Your task to perform on an android device: open device folders in google photos Image 0: 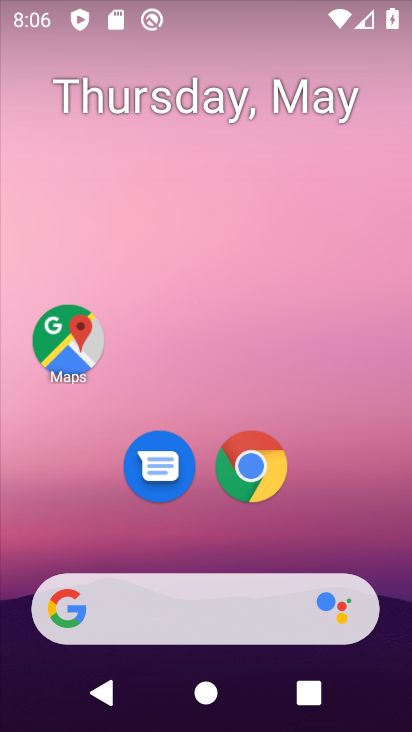
Step 0: drag from (237, 536) to (231, 12)
Your task to perform on an android device: open device folders in google photos Image 1: 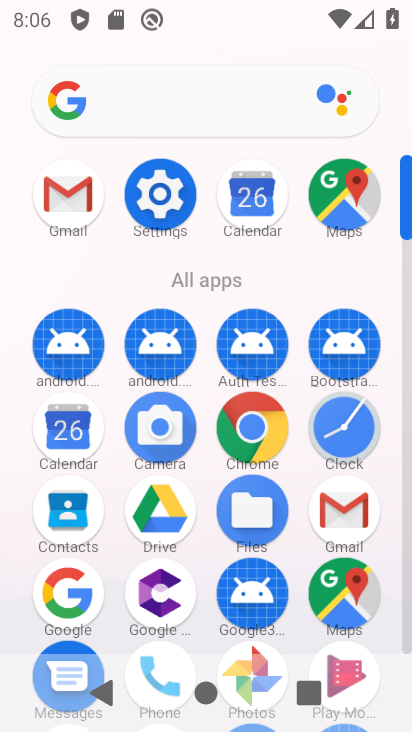
Step 1: click (252, 653)
Your task to perform on an android device: open device folders in google photos Image 2: 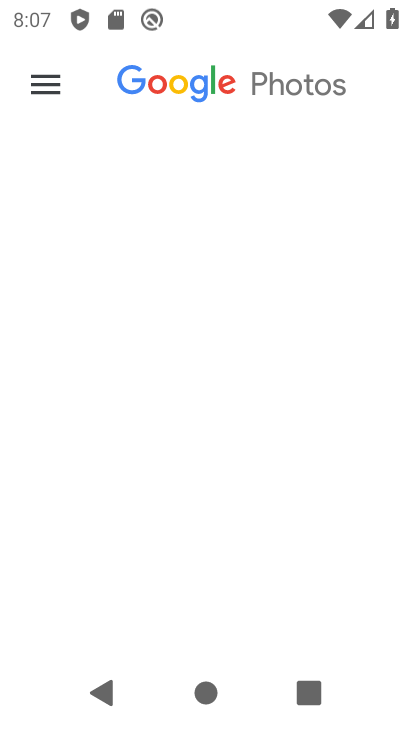
Step 2: click (51, 86)
Your task to perform on an android device: open device folders in google photos Image 3: 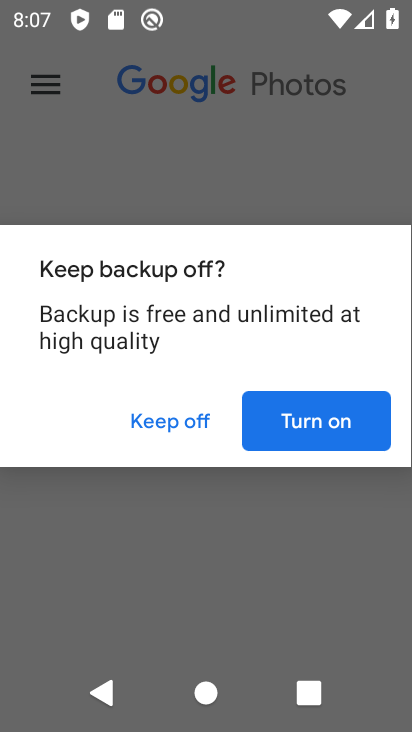
Step 3: click (195, 422)
Your task to perform on an android device: open device folders in google photos Image 4: 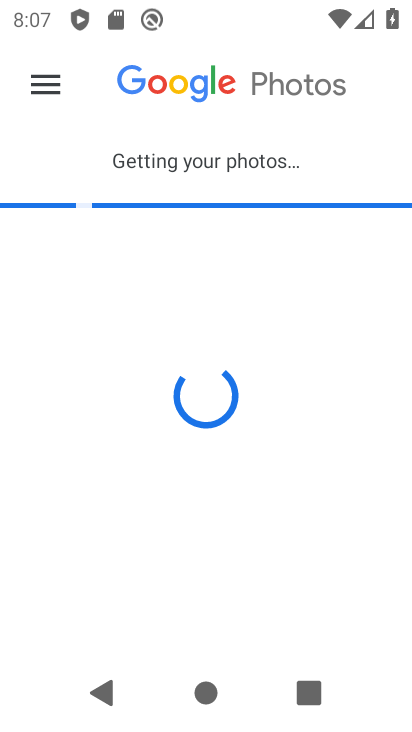
Step 4: click (43, 100)
Your task to perform on an android device: open device folders in google photos Image 5: 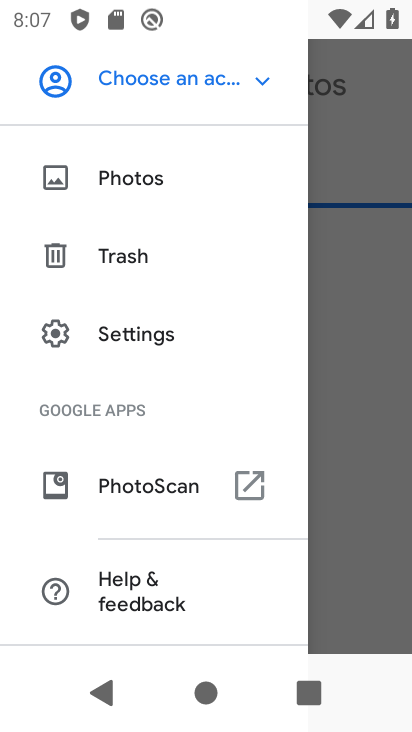
Step 5: click (113, 79)
Your task to perform on an android device: open device folders in google photos Image 6: 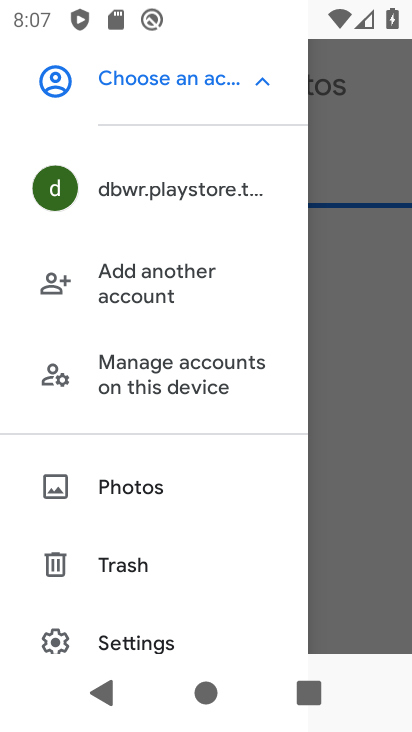
Step 6: click (182, 200)
Your task to perform on an android device: open device folders in google photos Image 7: 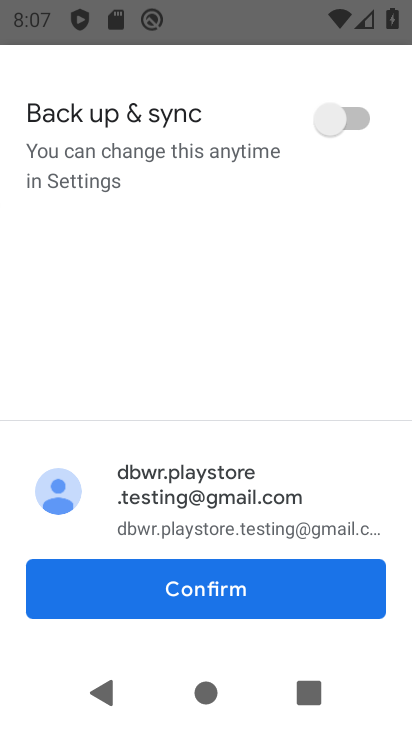
Step 7: click (238, 592)
Your task to perform on an android device: open device folders in google photos Image 8: 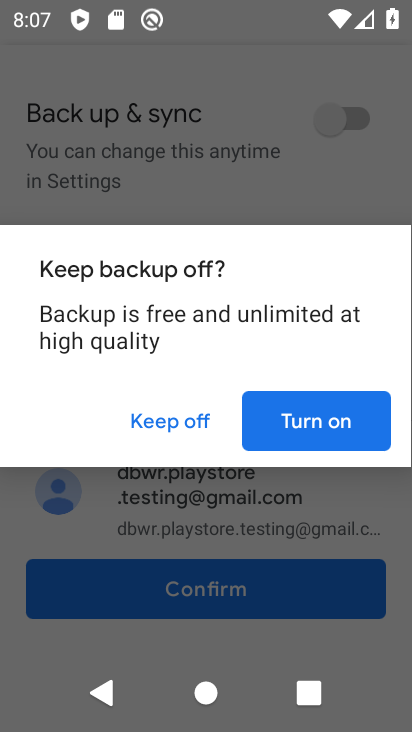
Step 8: click (323, 425)
Your task to perform on an android device: open device folders in google photos Image 9: 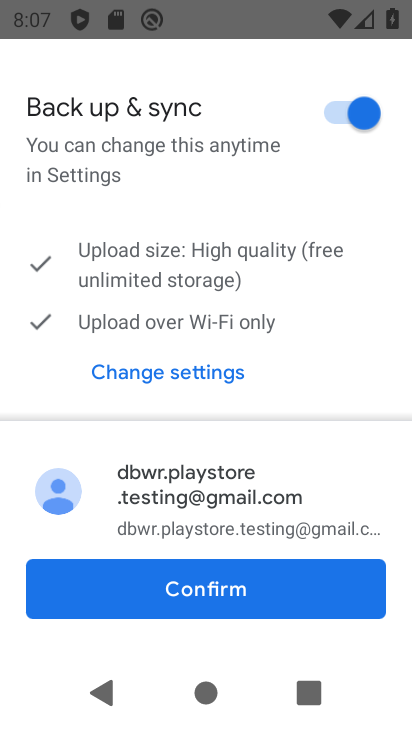
Step 9: click (255, 593)
Your task to perform on an android device: open device folders in google photos Image 10: 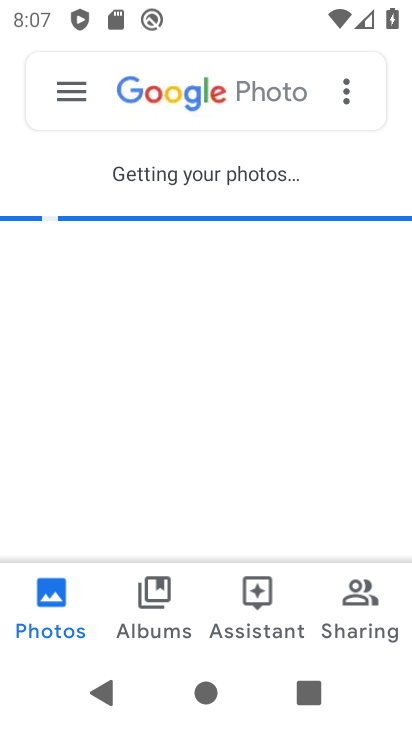
Step 10: click (31, 86)
Your task to perform on an android device: open device folders in google photos Image 11: 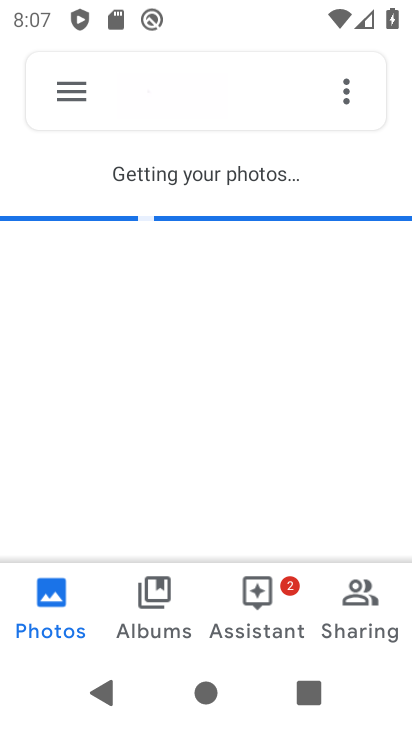
Step 11: click (46, 87)
Your task to perform on an android device: open device folders in google photos Image 12: 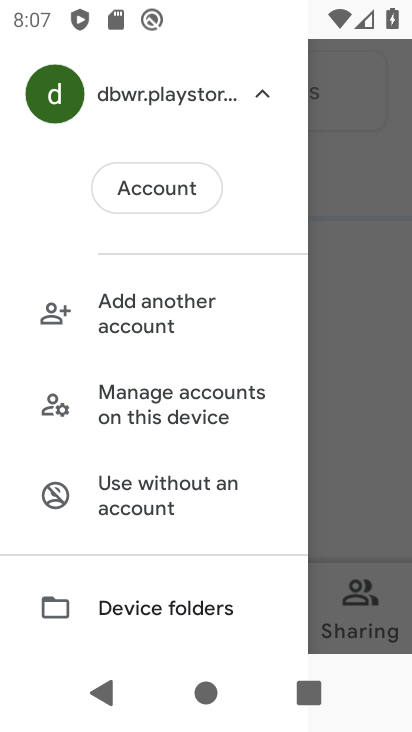
Step 12: drag from (171, 464) to (167, 169)
Your task to perform on an android device: open device folders in google photos Image 13: 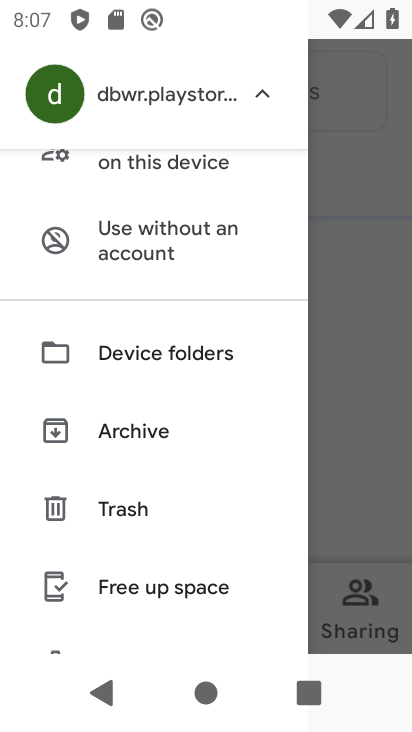
Step 13: click (193, 357)
Your task to perform on an android device: open device folders in google photos Image 14: 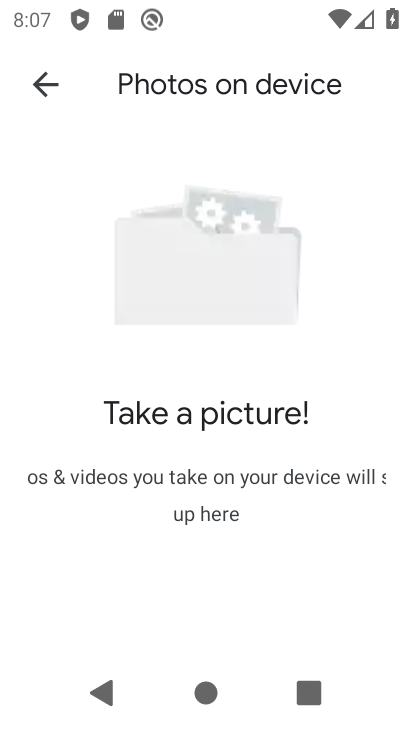
Step 14: task complete